Your task to perform on an android device: turn pop-ups off in chrome Image 0: 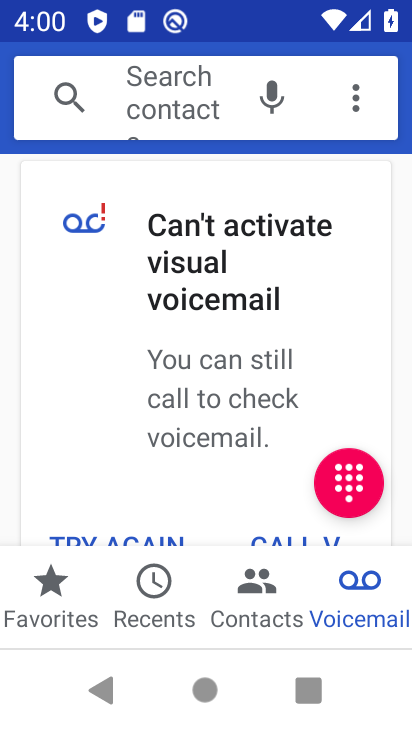
Step 0: press home button
Your task to perform on an android device: turn pop-ups off in chrome Image 1: 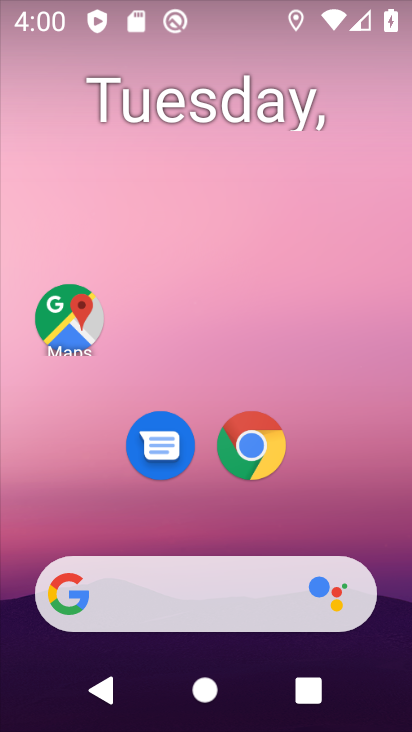
Step 1: drag from (136, 628) to (275, 81)
Your task to perform on an android device: turn pop-ups off in chrome Image 2: 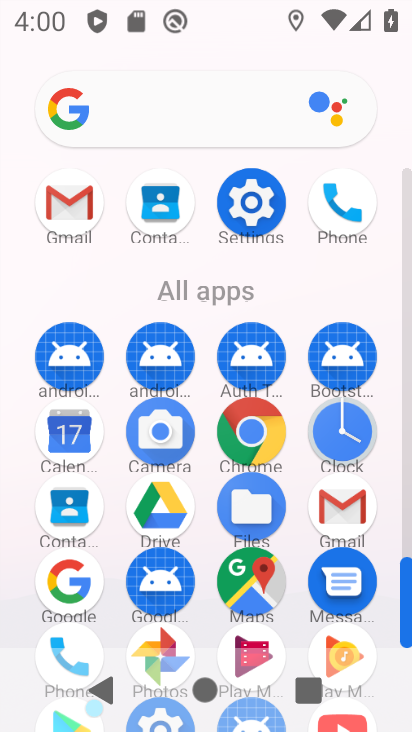
Step 2: click (245, 431)
Your task to perform on an android device: turn pop-ups off in chrome Image 3: 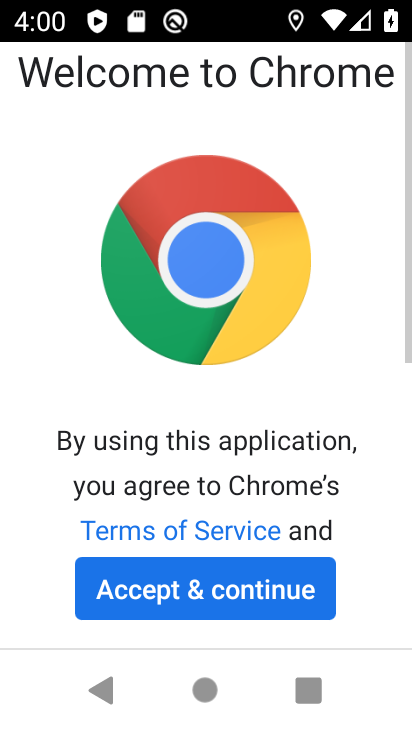
Step 3: click (237, 596)
Your task to perform on an android device: turn pop-ups off in chrome Image 4: 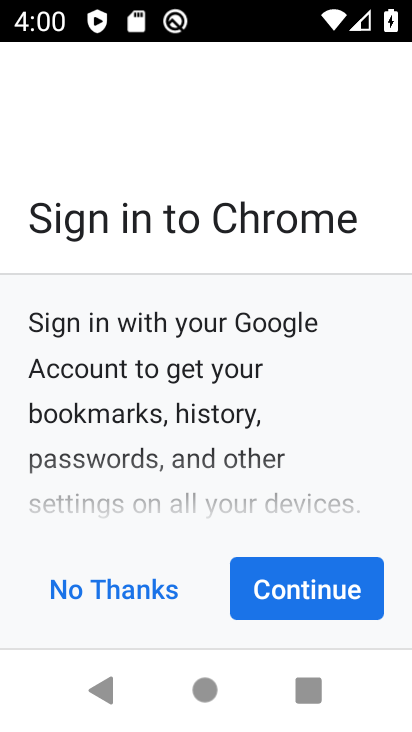
Step 4: click (135, 585)
Your task to perform on an android device: turn pop-ups off in chrome Image 5: 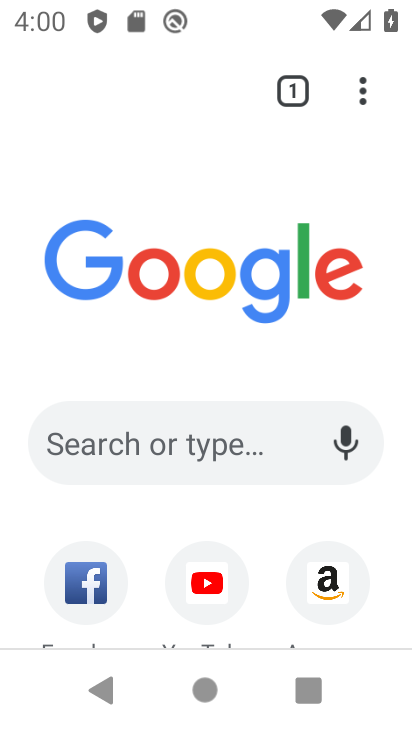
Step 5: click (360, 90)
Your task to perform on an android device: turn pop-ups off in chrome Image 6: 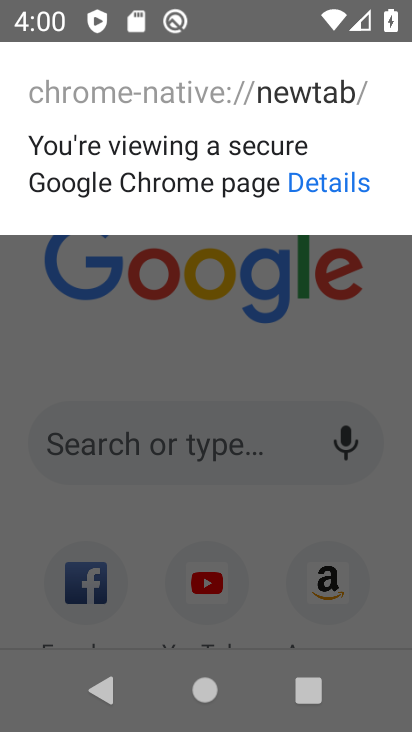
Step 6: click (337, 324)
Your task to perform on an android device: turn pop-ups off in chrome Image 7: 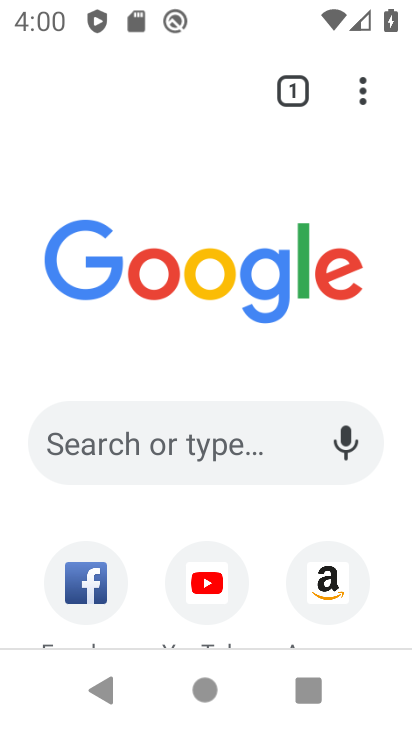
Step 7: drag from (359, 88) to (108, 481)
Your task to perform on an android device: turn pop-ups off in chrome Image 8: 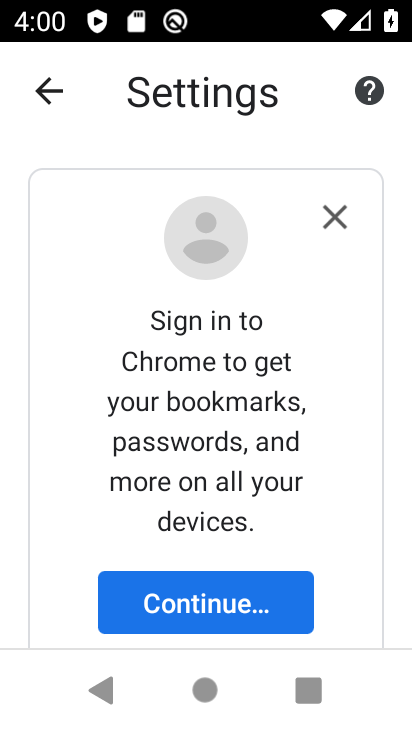
Step 8: drag from (288, 547) to (311, 85)
Your task to perform on an android device: turn pop-ups off in chrome Image 9: 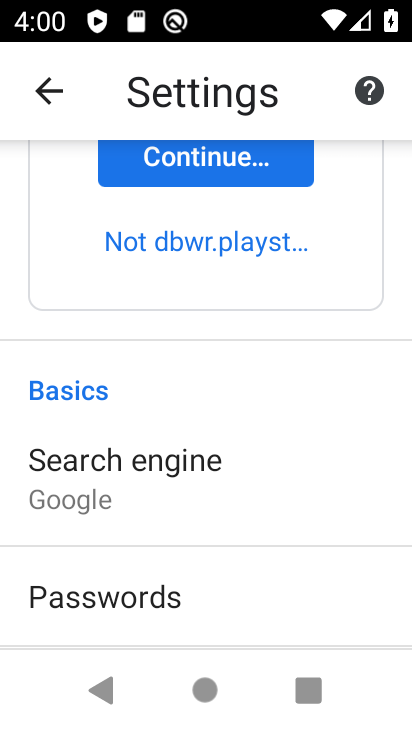
Step 9: drag from (222, 609) to (241, 225)
Your task to perform on an android device: turn pop-ups off in chrome Image 10: 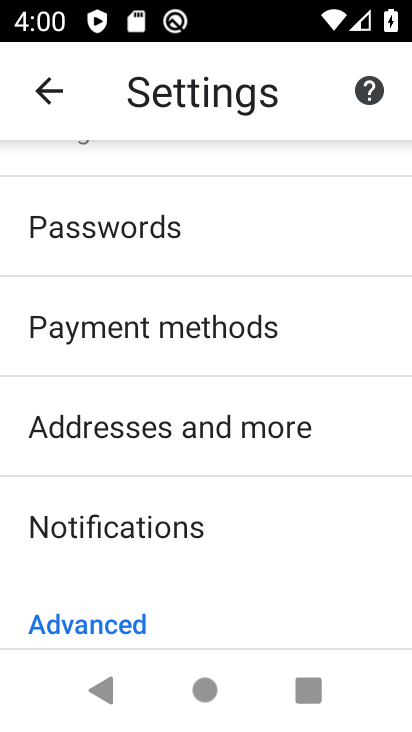
Step 10: drag from (216, 565) to (230, 153)
Your task to perform on an android device: turn pop-ups off in chrome Image 11: 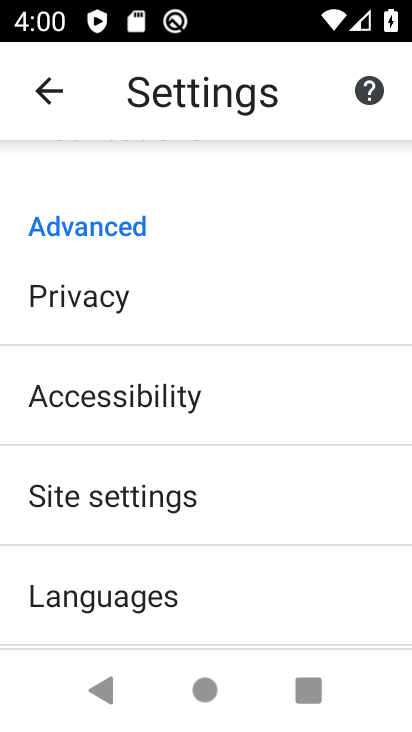
Step 11: click (178, 487)
Your task to perform on an android device: turn pop-ups off in chrome Image 12: 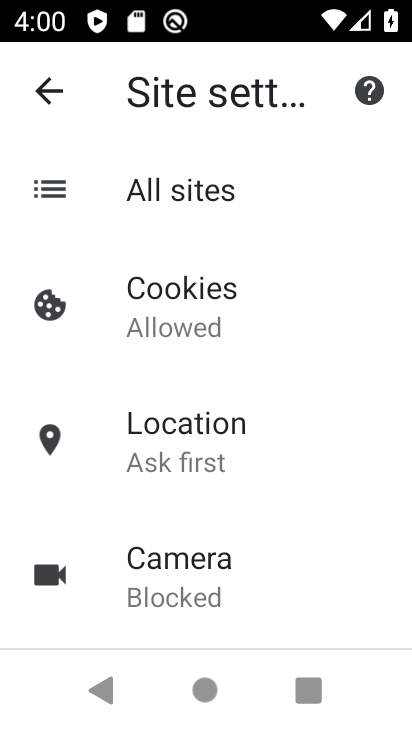
Step 12: drag from (218, 602) to (242, 49)
Your task to perform on an android device: turn pop-ups off in chrome Image 13: 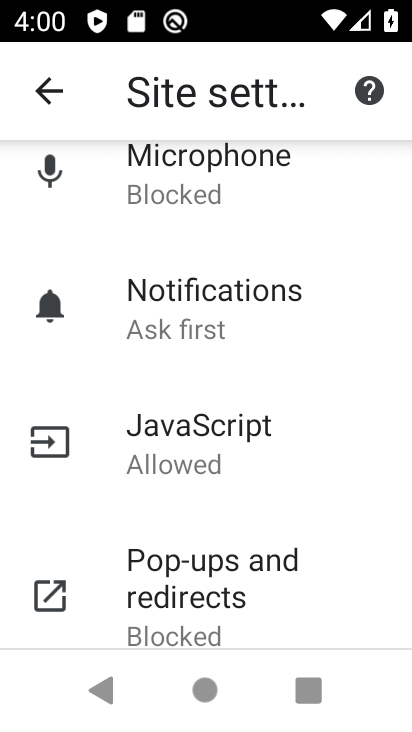
Step 13: click (234, 570)
Your task to perform on an android device: turn pop-ups off in chrome Image 14: 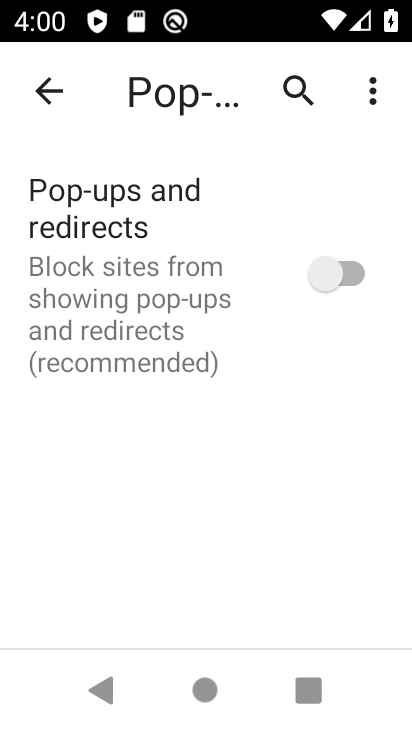
Step 14: task complete